Your task to perform on an android device: turn off javascript in the chrome app Image 0: 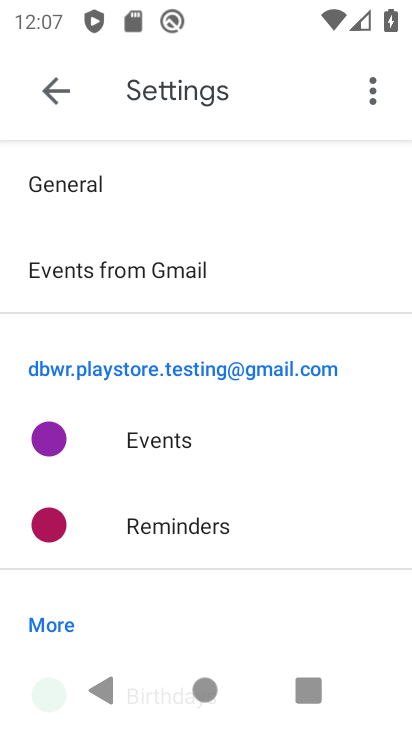
Step 0: press home button
Your task to perform on an android device: turn off javascript in the chrome app Image 1: 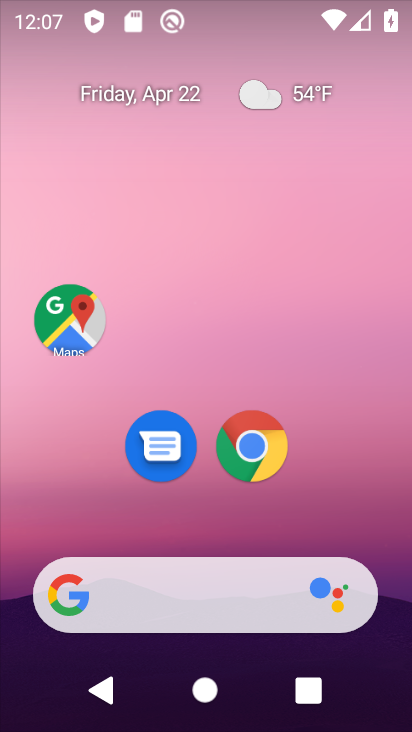
Step 1: click (252, 449)
Your task to perform on an android device: turn off javascript in the chrome app Image 2: 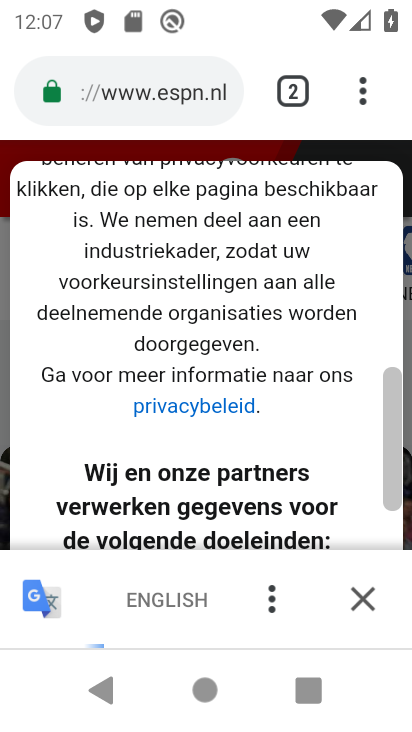
Step 2: drag from (361, 95) to (258, 454)
Your task to perform on an android device: turn off javascript in the chrome app Image 3: 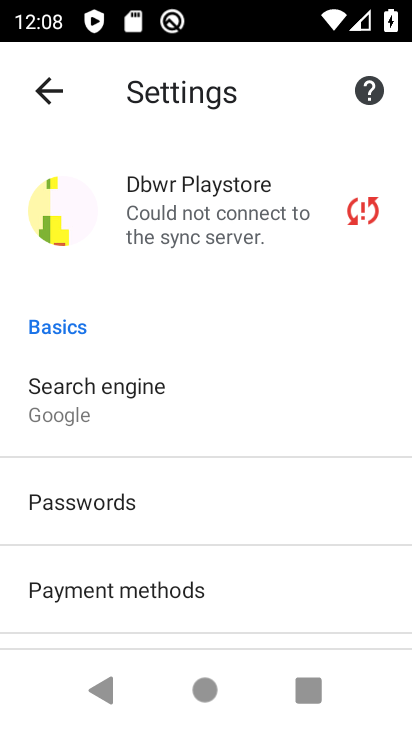
Step 3: drag from (302, 547) to (263, 86)
Your task to perform on an android device: turn off javascript in the chrome app Image 4: 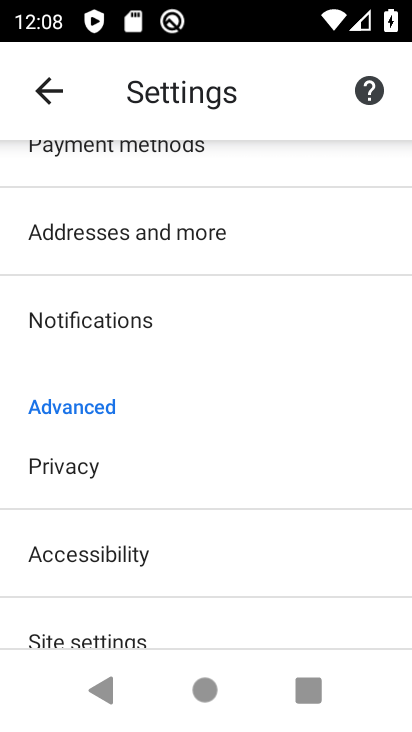
Step 4: drag from (284, 530) to (266, 201)
Your task to perform on an android device: turn off javascript in the chrome app Image 5: 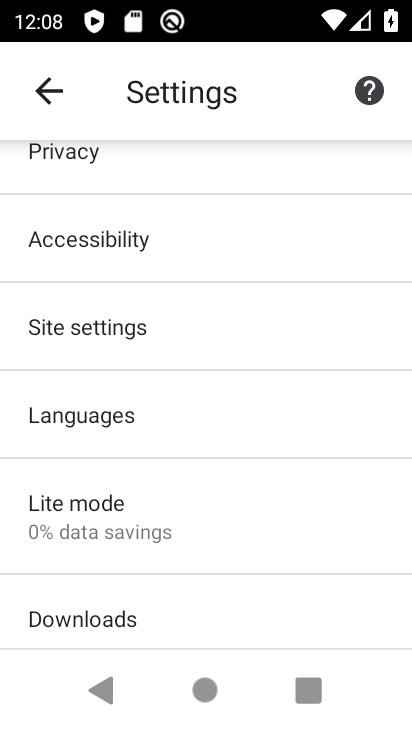
Step 5: click (283, 329)
Your task to perform on an android device: turn off javascript in the chrome app Image 6: 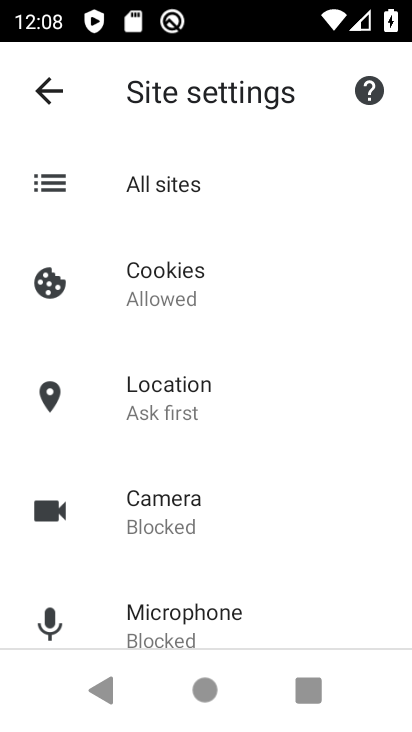
Step 6: drag from (296, 540) to (264, 206)
Your task to perform on an android device: turn off javascript in the chrome app Image 7: 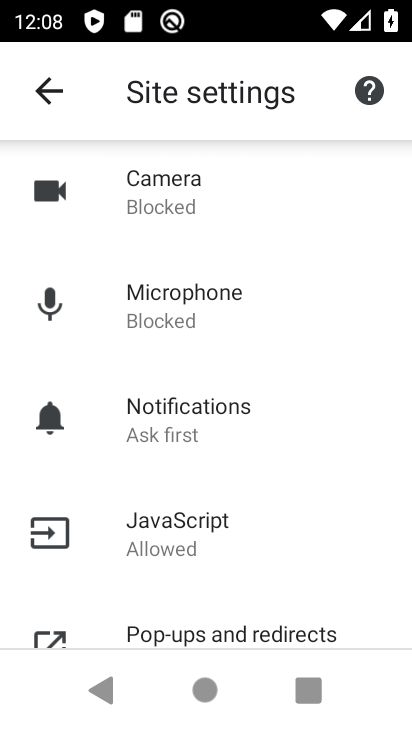
Step 7: click (290, 530)
Your task to perform on an android device: turn off javascript in the chrome app Image 8: 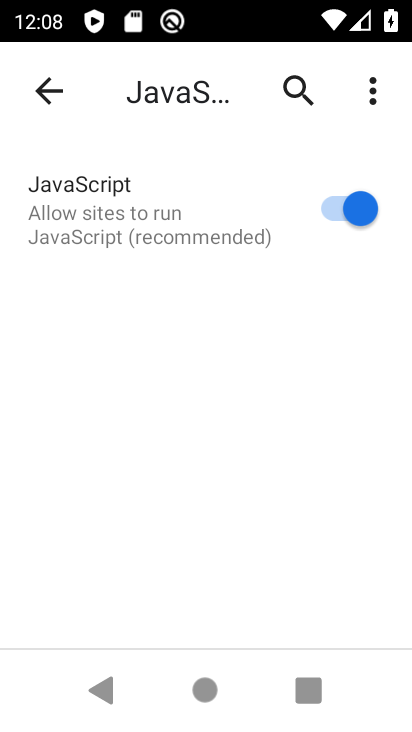
Step 8: click (338, 209)
Your task to perform on an android device: turn off javascript in the chrome app Image 9: 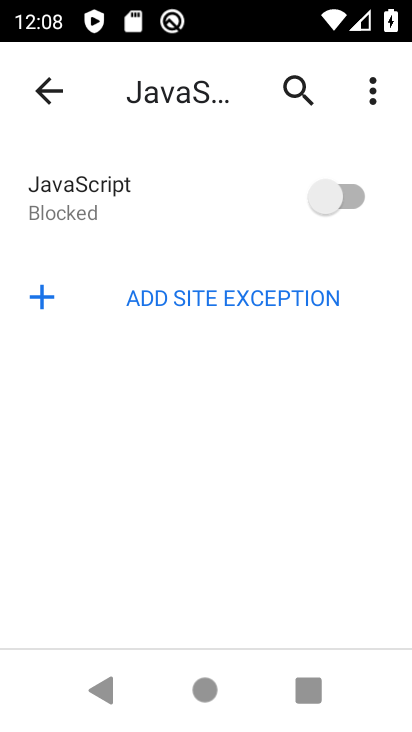
Step 9: task complete